Your task to perform on an android device: set the stopwatch Image 0: 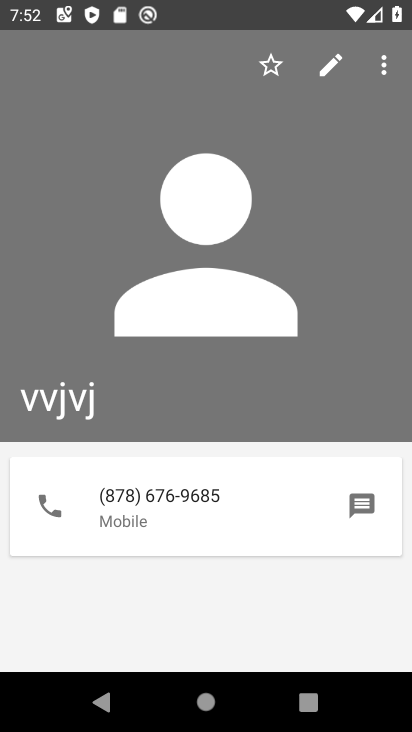
Step 0: press home button
Your task to perform on an android device: set the stopwatch Image 1: 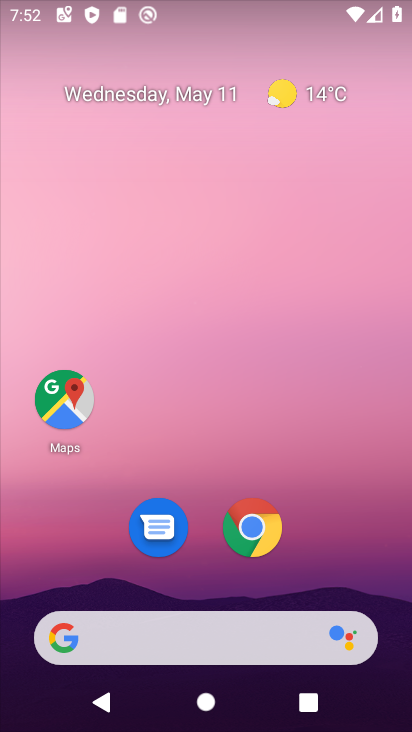
Step 1: drag from (308, 620) to (155, 95)
Your task to perform on an android device: set the stopwatch Image 2: 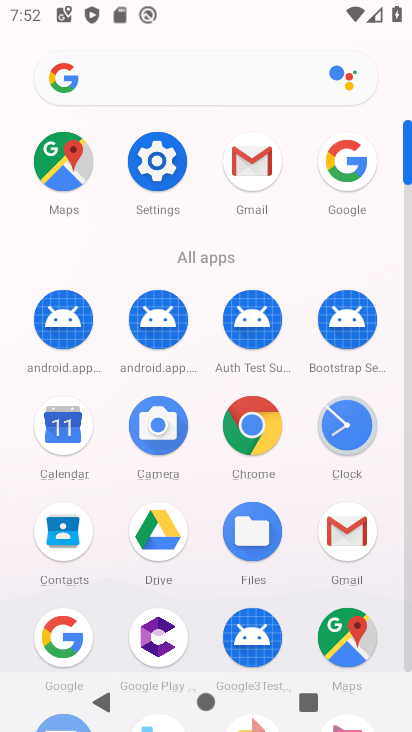
Step 2: click (325, 451)
Your task to perform on an android device: set the stopwatch Image 3: 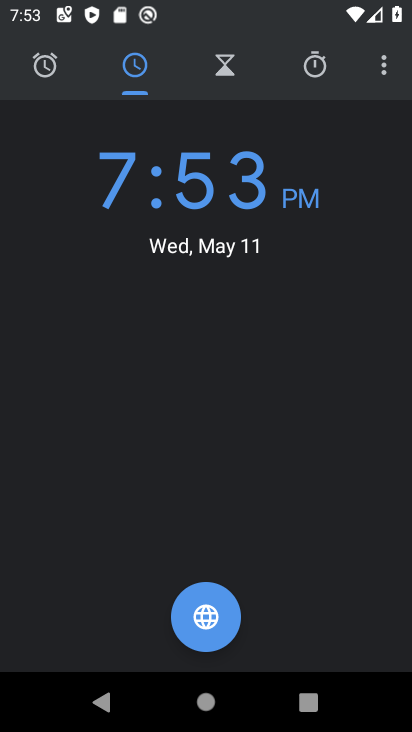
Step 3: click (323, 84)
Your task to perform on an android device: set the stopwatch Image 4: 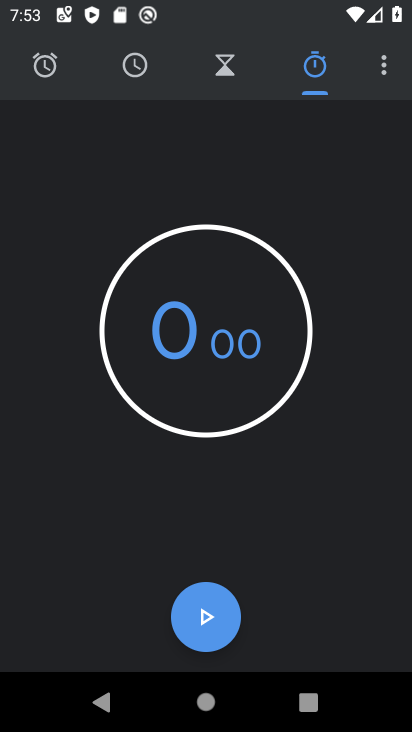
Step 4: click (224, 623)
Your task to perform on an android device: set the stopwatch Image 5: 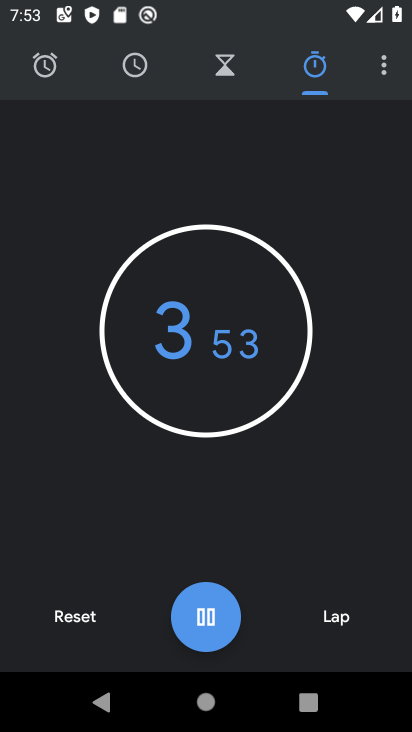
Step 5: task complete